Your task to perform on an android device: Open Google Chrome and click the shortcut for Amazon.com Image 0: 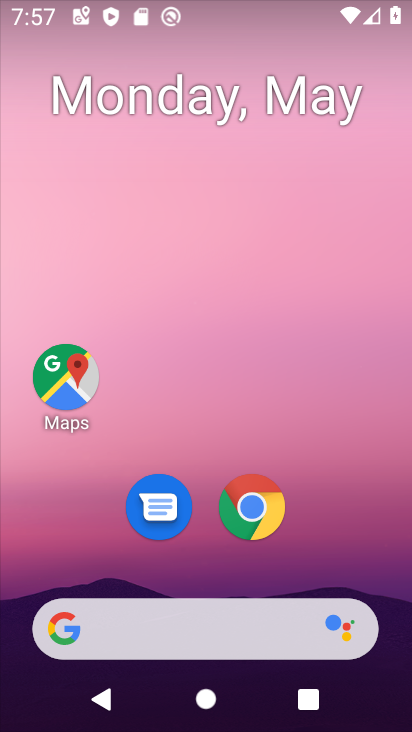
Step 0: press home button
Your task to perform on an android device: Open Google Chrome and click the shortcut for Amazon.com Image 1: 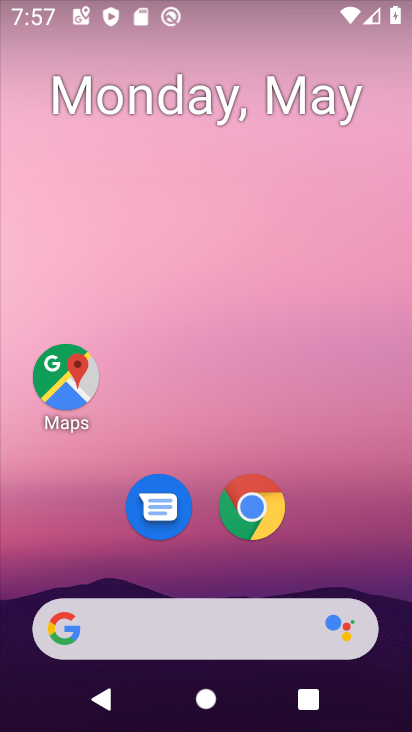
Step 1: click (253, 496)
Your task to perform on an android device: Open Google Chrome and click the shortcut for Amazon.com Image 2: 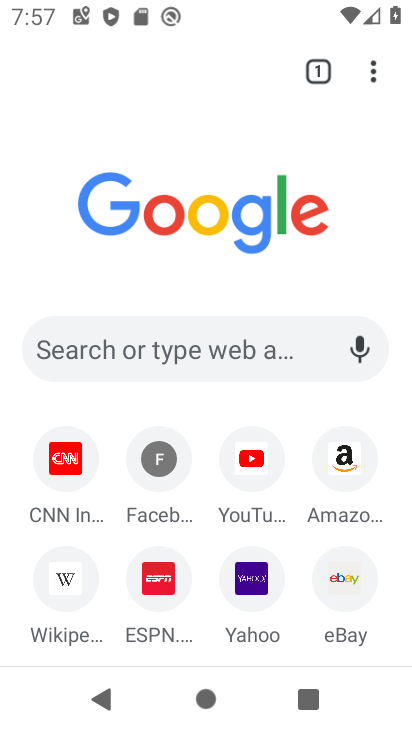
Step 2: click (351, 455)
Your task to perform on an android device: Open Google Chrome and click the shortcut for Amazon.com Image 3: 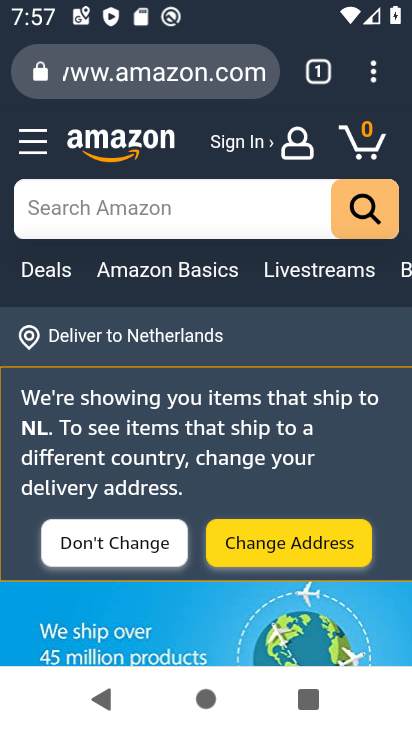
Step 3: task complete